Your task to perform on an android device: open app "Google Duo" Image 0: 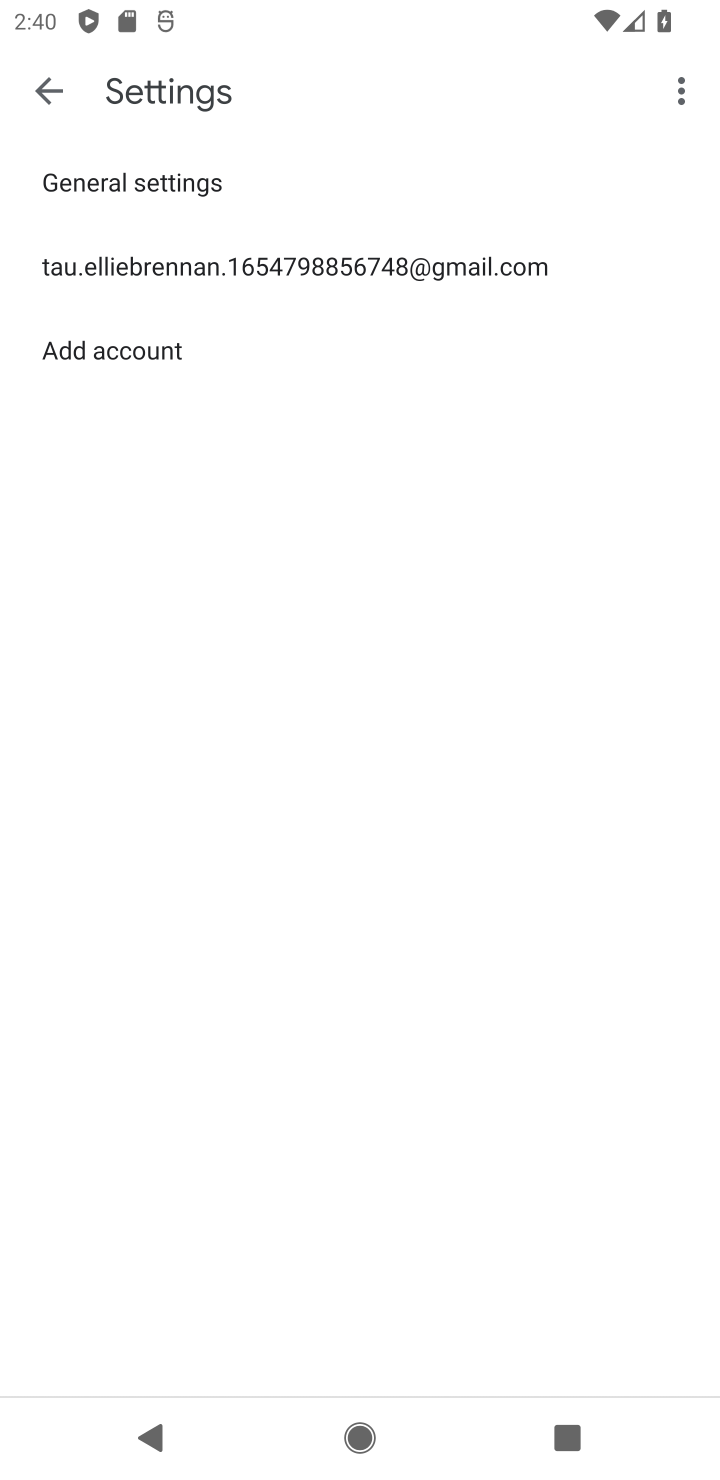
Step 0: press home button
Your task to perform on an android device: open app "Google Duo" Image 1: 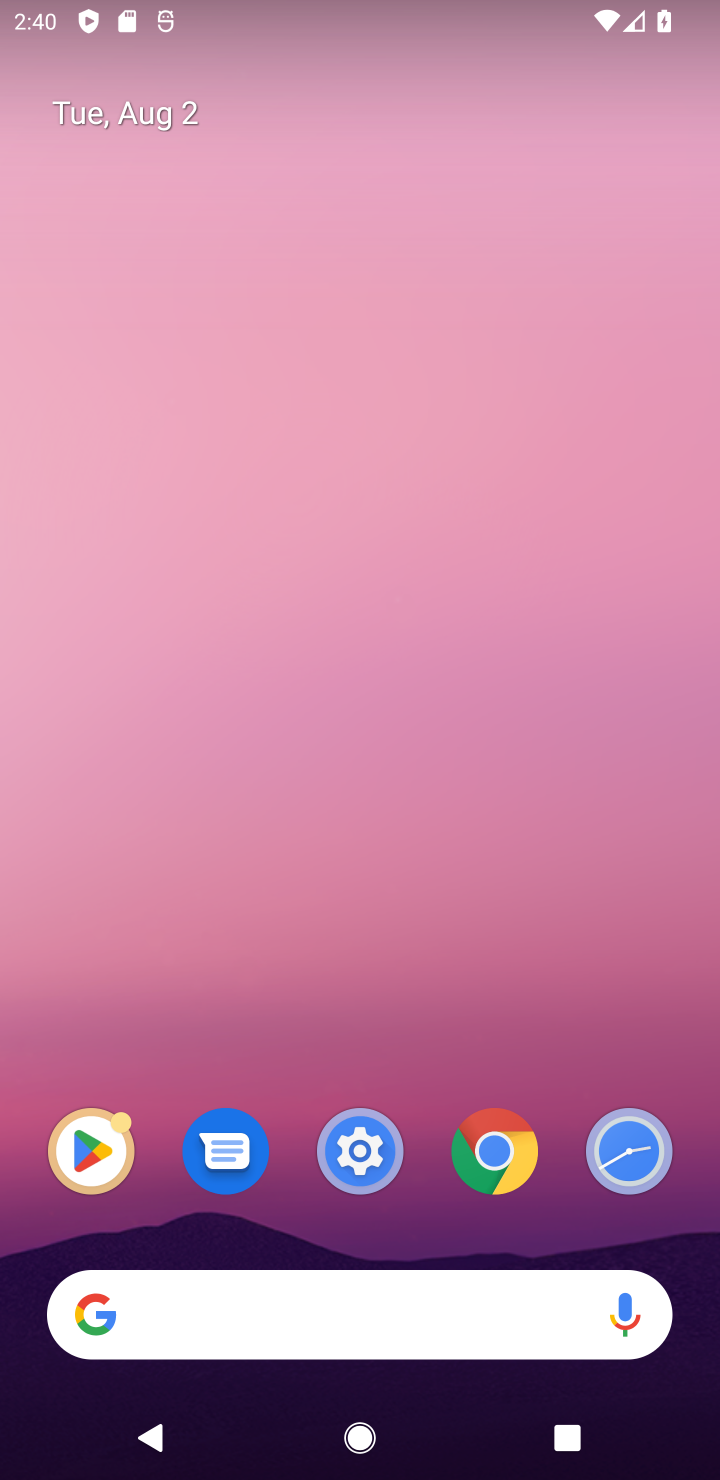
Step 1: task complete